Your task to perform on an android device: open sync settings in chrome Image 0: 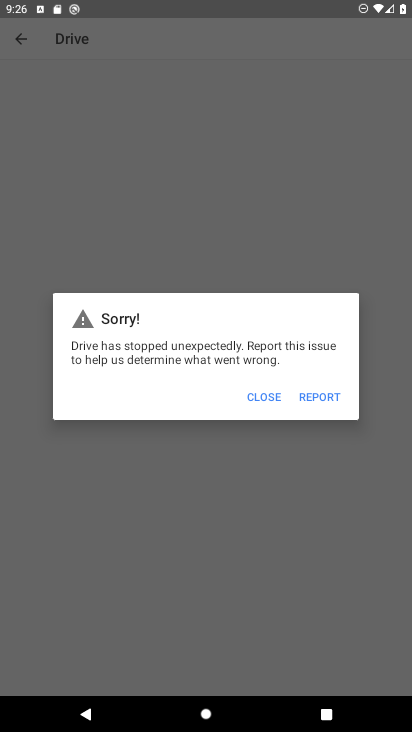
Step 0: press home button
Your task to perform on an android device: open sync settings in chrome Image 1: 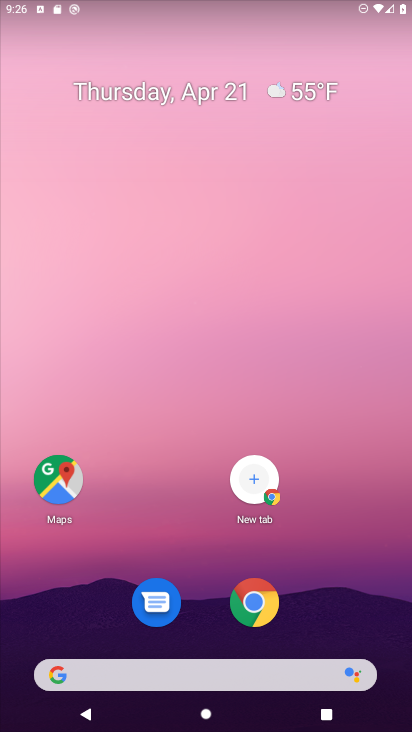
Step 1: click (247, 611)
Your task to perform on an android device: open sync settings in chrome Image 2: 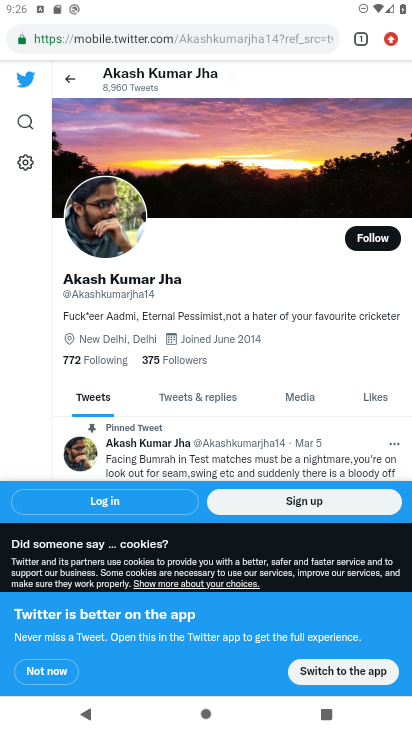
Step 2: click (394, 45)
Your task to perform on an android device: open sync settings in chrome Image 3: 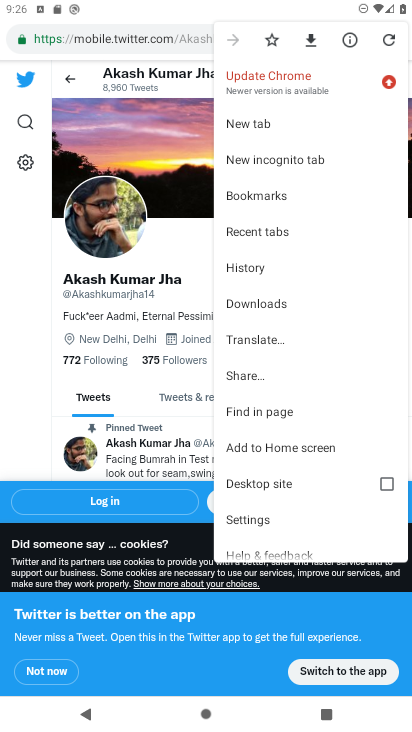
Step 3: click (255, 523)
Your task to perform on an android device: open sync settings in chrome Image 4: 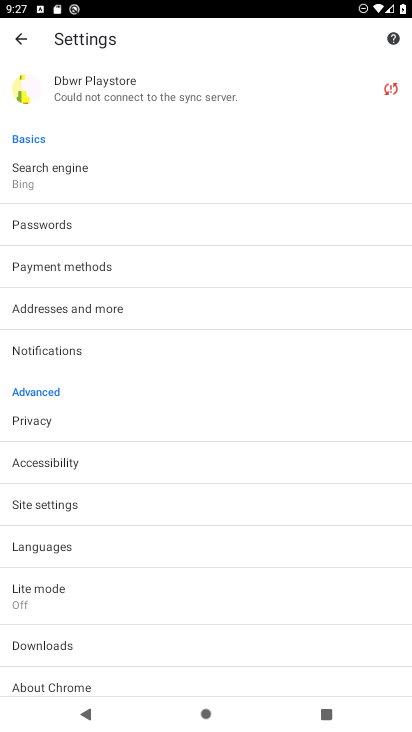
Step 4: click (153, 92)
Your task to perform on an android device: open sync settings in chrome Image 5: 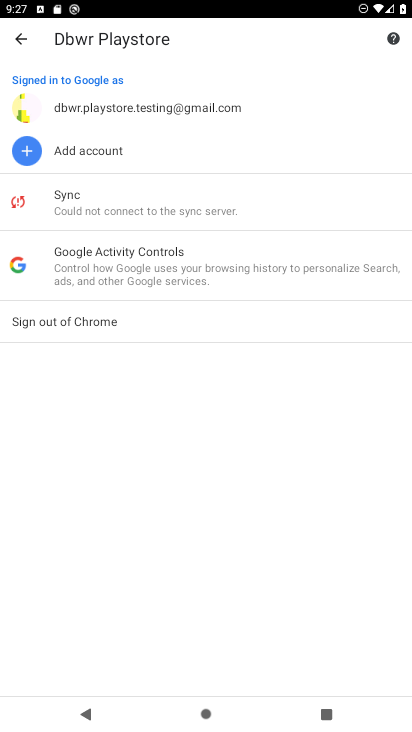
Step 5: click (68, 202)
Your task to perform on an android device: open sync settings in chrome Image 6: 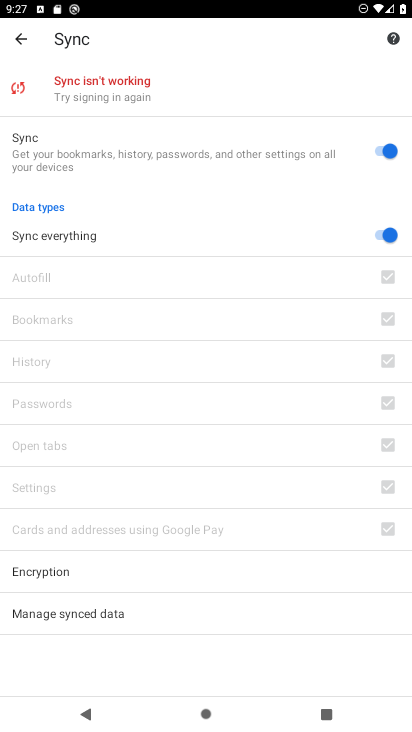
Step 6: task complete